Your task to perform on an android device: Open Reddit.com Image 0: 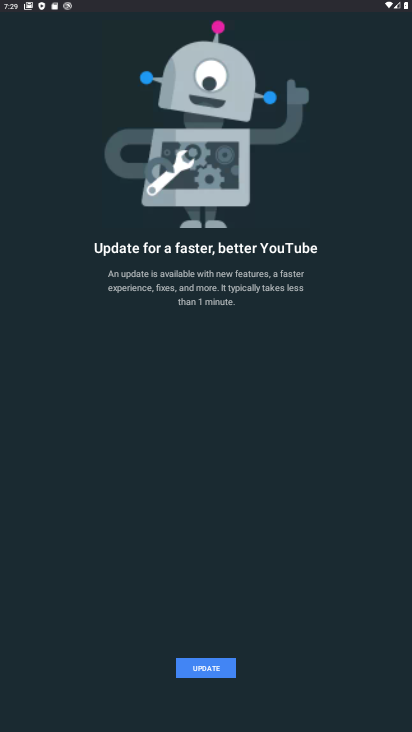
Step 0: press home button
Your task to perform on an android device: Open Reddit.com Image 1: 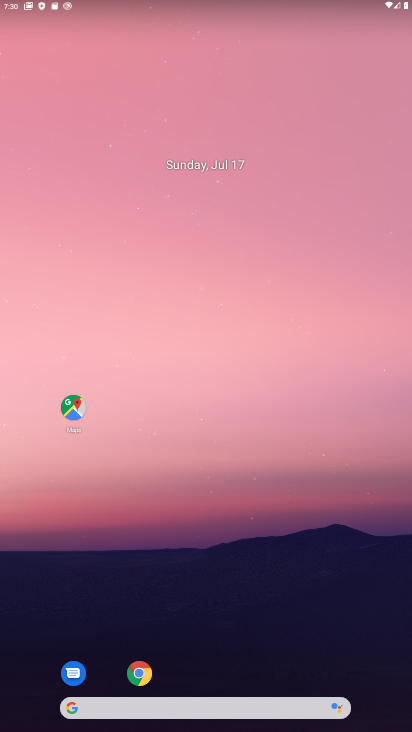
Step 1: drag from (301, 561) to (266, 78)
Your task to perform on an android device: Open Reddit.com Image 2: 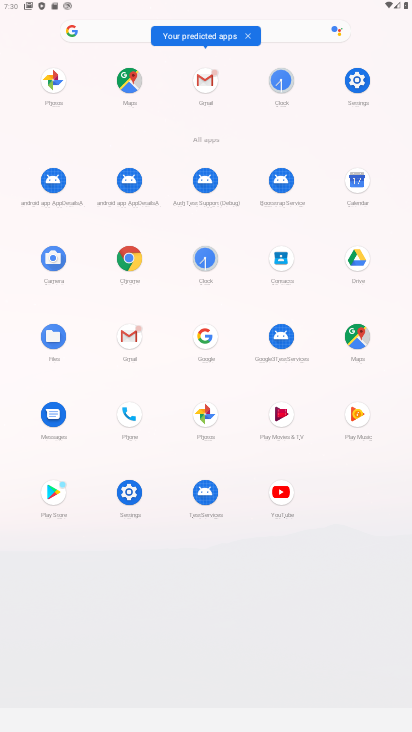
Step 2: click (134, 255)
Your task to perform on an android device: Open Reddit.com Image 3: 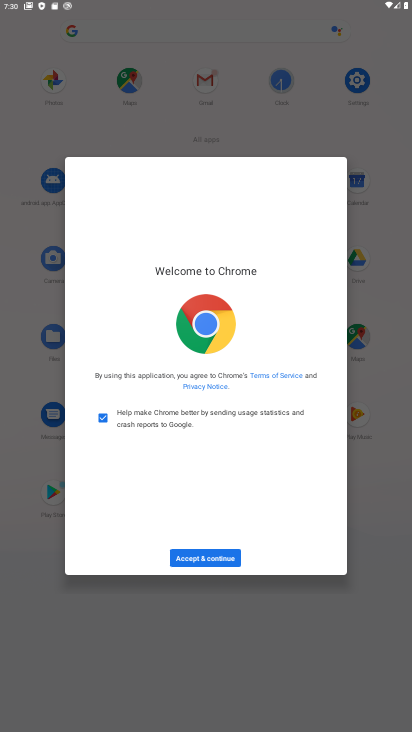
Step 3: click (212, 566)
Your task to perform on an android device: Open Reddit.com Image 4: 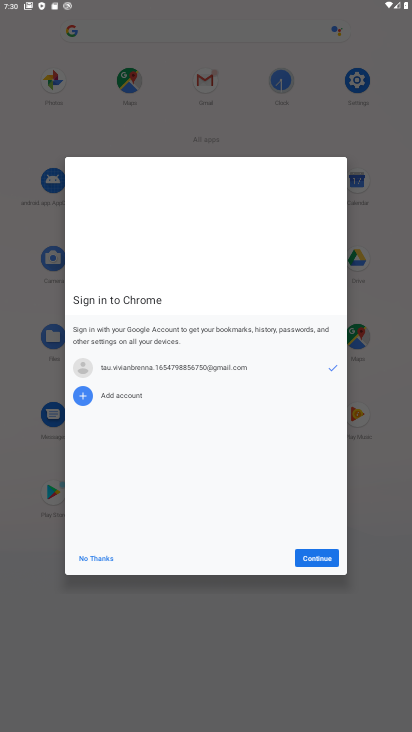
Step 4: click (327, 563)
Your task to perform on an android device: Open Reddit.com Image 5: 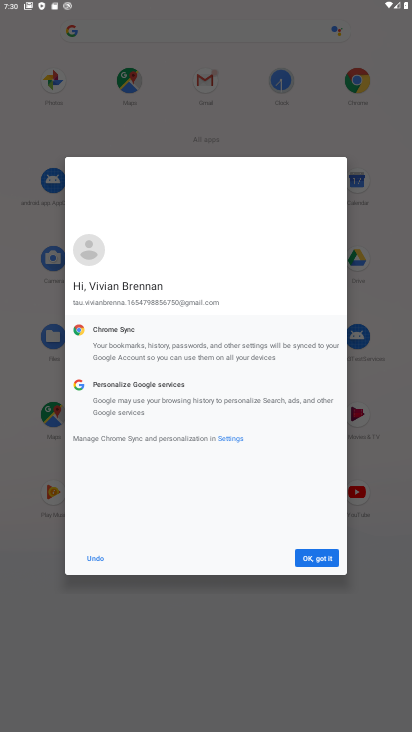
Step 5: click (302, 572)
Your task to perform on an android device: Open Reddit.com Image 6: 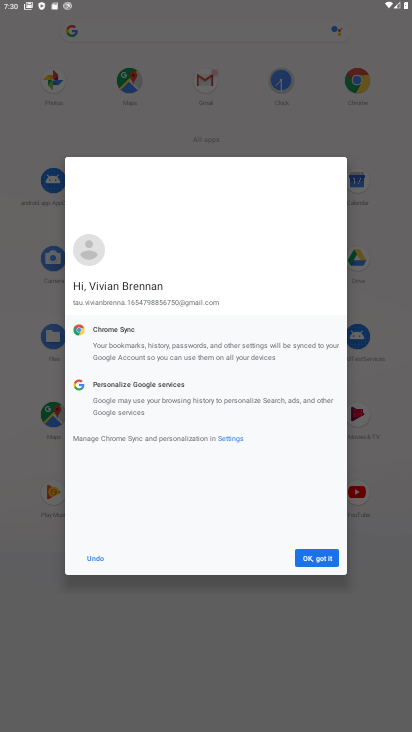
Step 6: click (311, 554)
Your task to perform on an android device: Open Reddit.com Image 7: 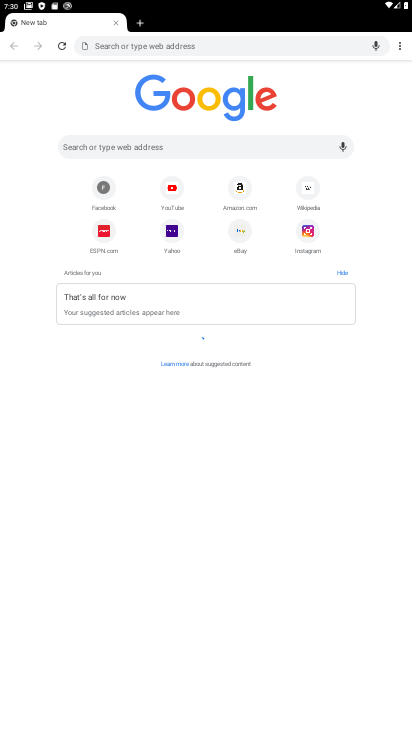
Step 7: click (209, 147)
Your task to perform on an android device: Open Reddit.com Image 8: 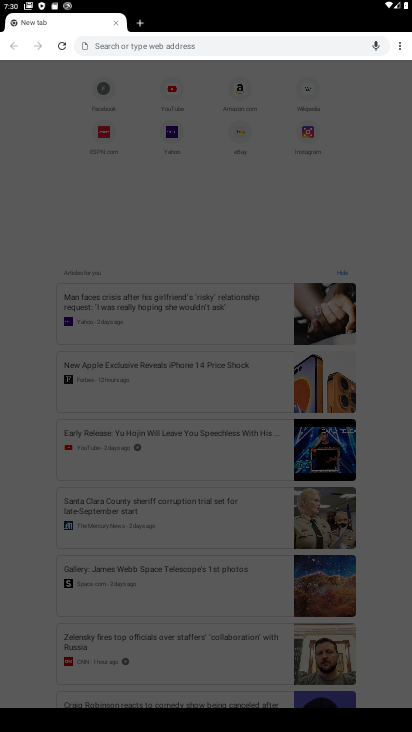
Step 8: type "reddit.com"
Your task to perform on an android device: Open Reddit.com Image 9: 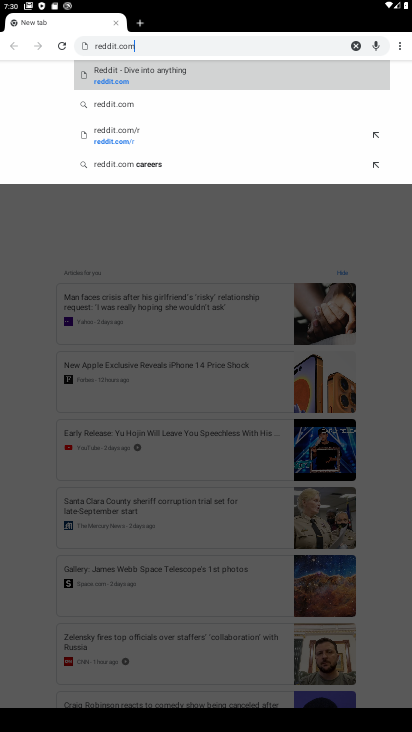
Step 9: type ""
Your task to perform on an android device: Open Reddit.com Image 10: 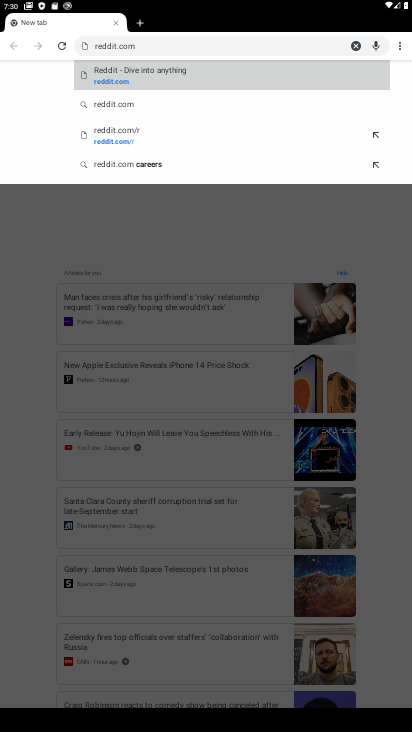
Step 10: click (240, 79)
Your task to perform on an android device: Open Reddit.com Image 11: 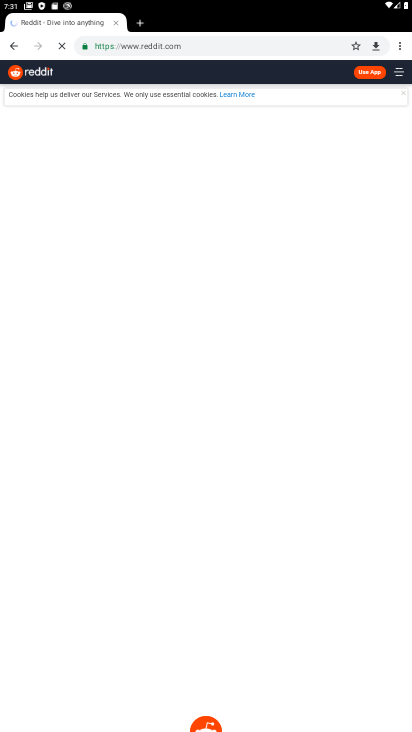
Step 11: task complete